Your task to perform on an android device: Set the phone to "Do not disturb". Image 0: 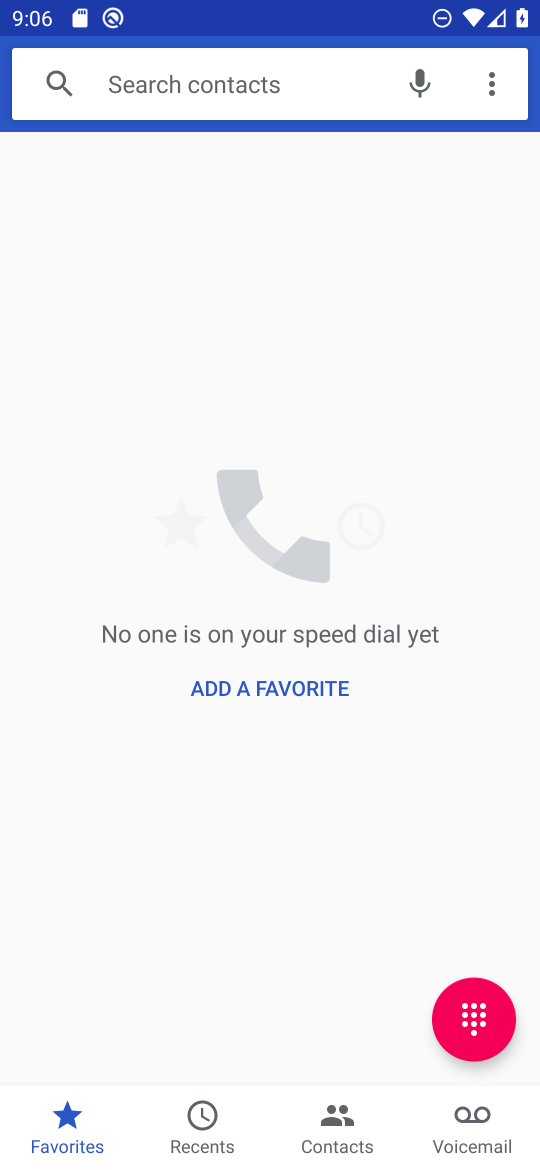
Step 0: press home button
Your task to perform on an android device: Set the phone to "Do not disturb". Image 1: 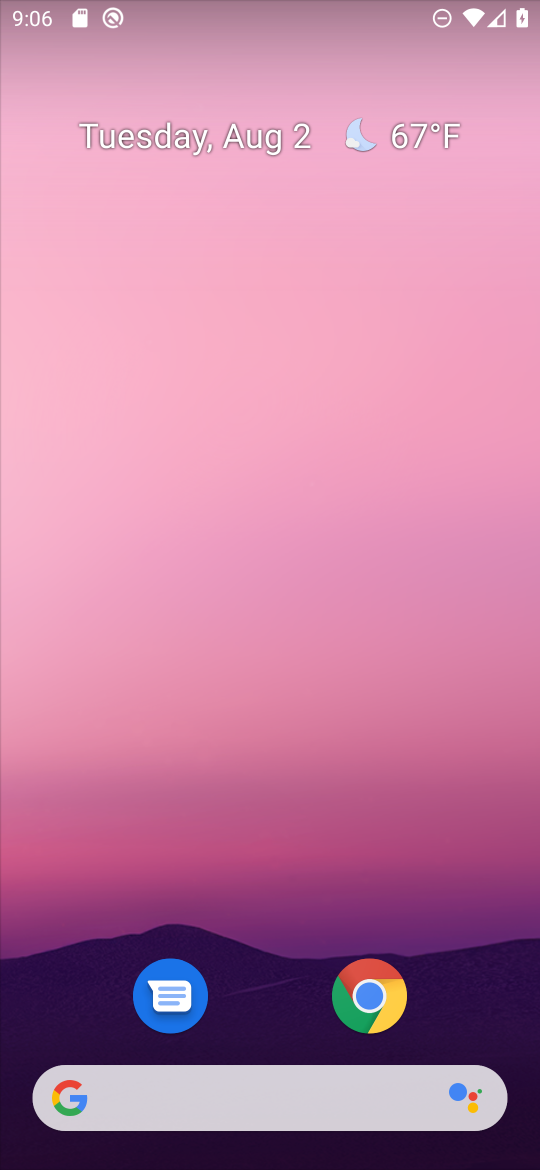
Step 1: task complete